Your task to perform on an android device: turn vacation reply on in the gmail app Image 0: 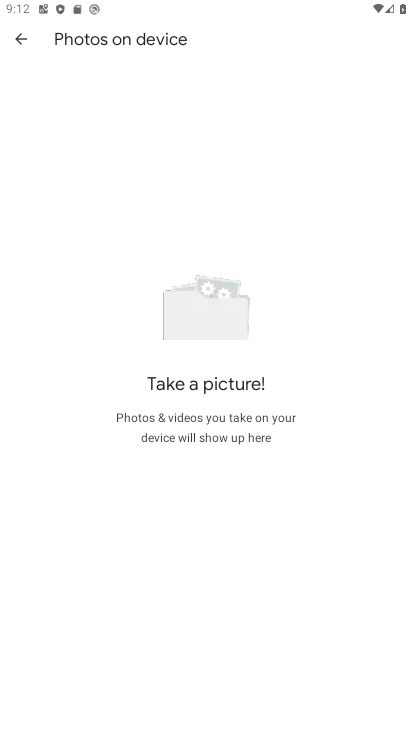
Step 0: press home button
Your task to perform on an android device: turn vacation reply on in the gmail app Image 1: 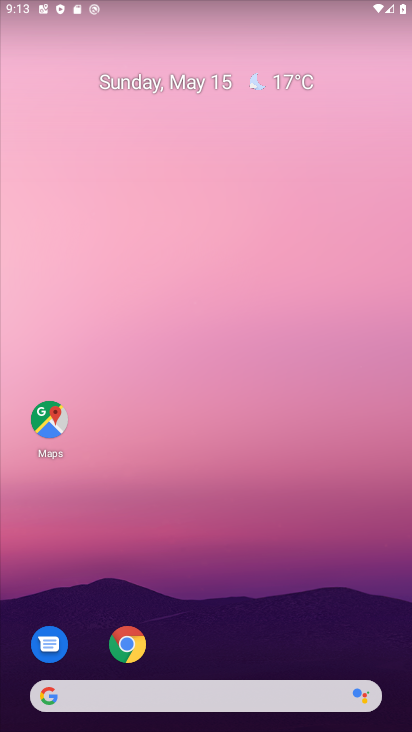
Step 1: drag from (230, 710) to (297, 97)
Your task to perform on an android device: turn vacation reply on in the gmail app Image 2: 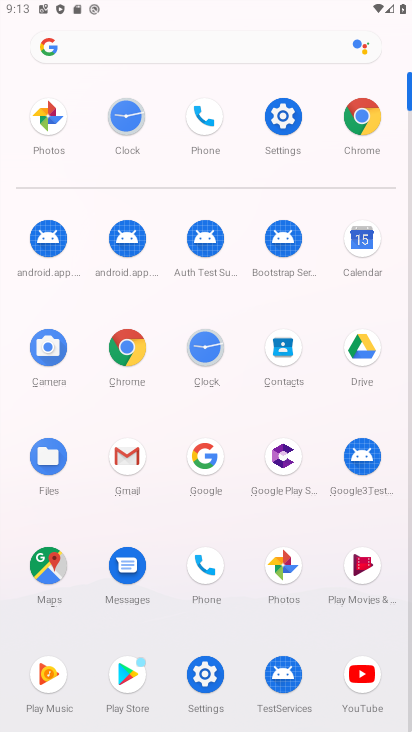
Step 2: click (124, 456)
Your task to perform on an android device: turn vacation reply on in the gmail app Image 3: 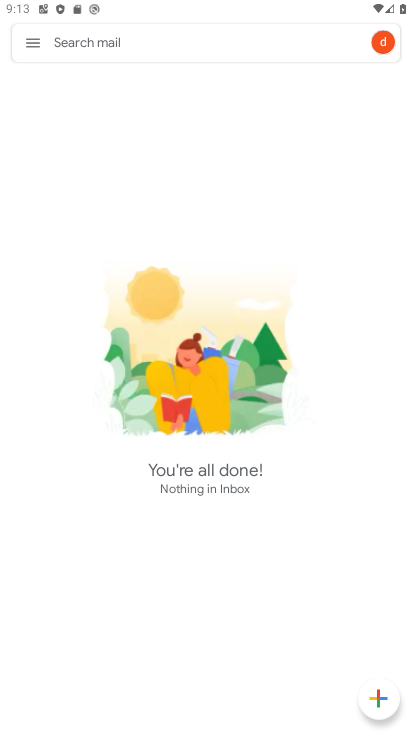
Step 3: click (27, 46)
Your task to perform on an android device: turn vacation reply on in the gmail app Image 4: 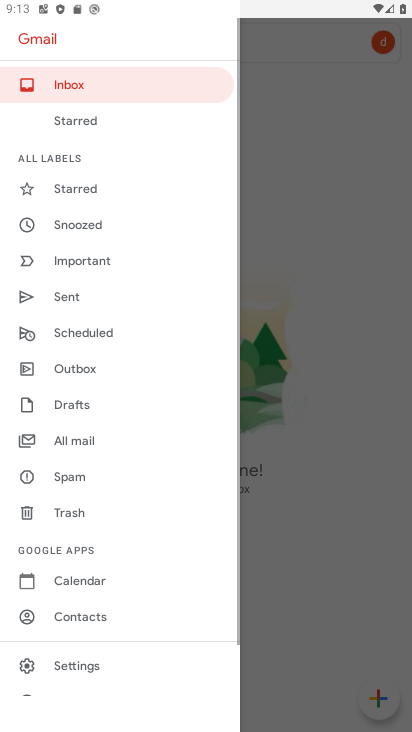
Step 4: click (50, 666)
Your task to perform on an android device: turn vacation reply on in the gmail app Image 5: 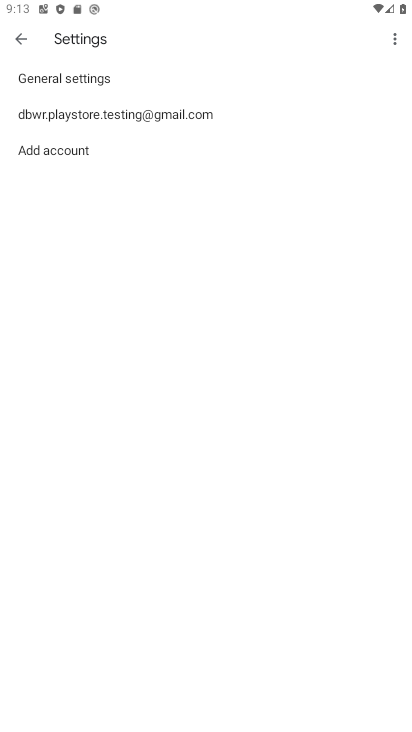
Step 5: click (176, 122)
Your task to perform on an android device: turn vacation reply on in the gmail app Image 6: 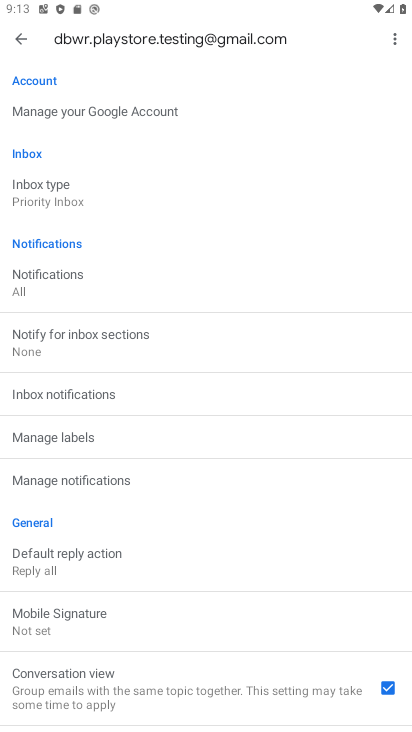
Step 6: drag from (131, 587) to (251, 261)
Your task to perform on an android device: turn vacation reply on in the gmail app Image 7: 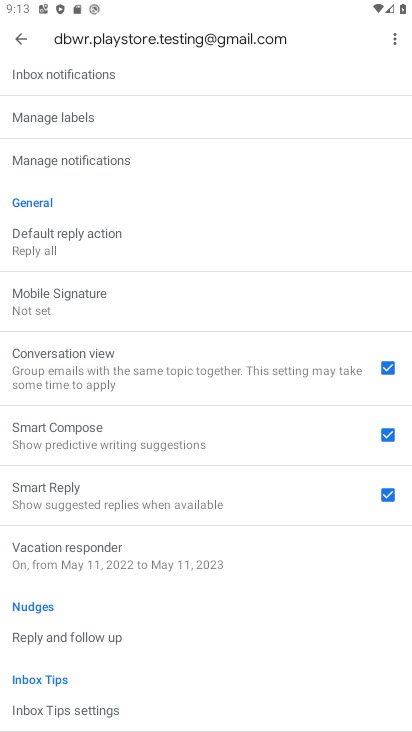
Step 7: click (150, 565)
Your task to perform on an android device: turn vacation reply on in the gmail app Image 8: 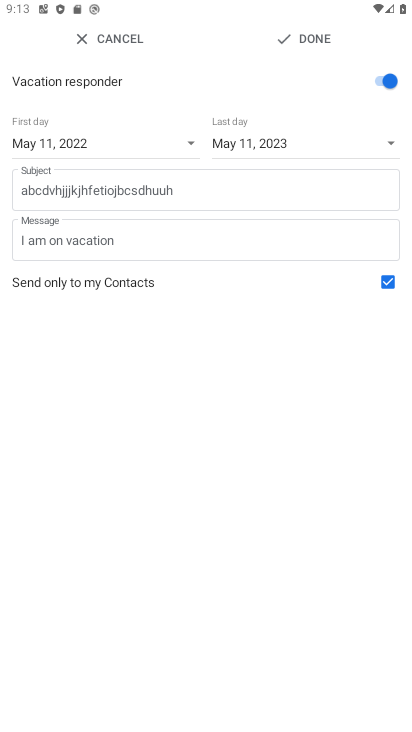
Step 8: task complete